Your task to perform on an android device: turn on sleep mode Image 0: 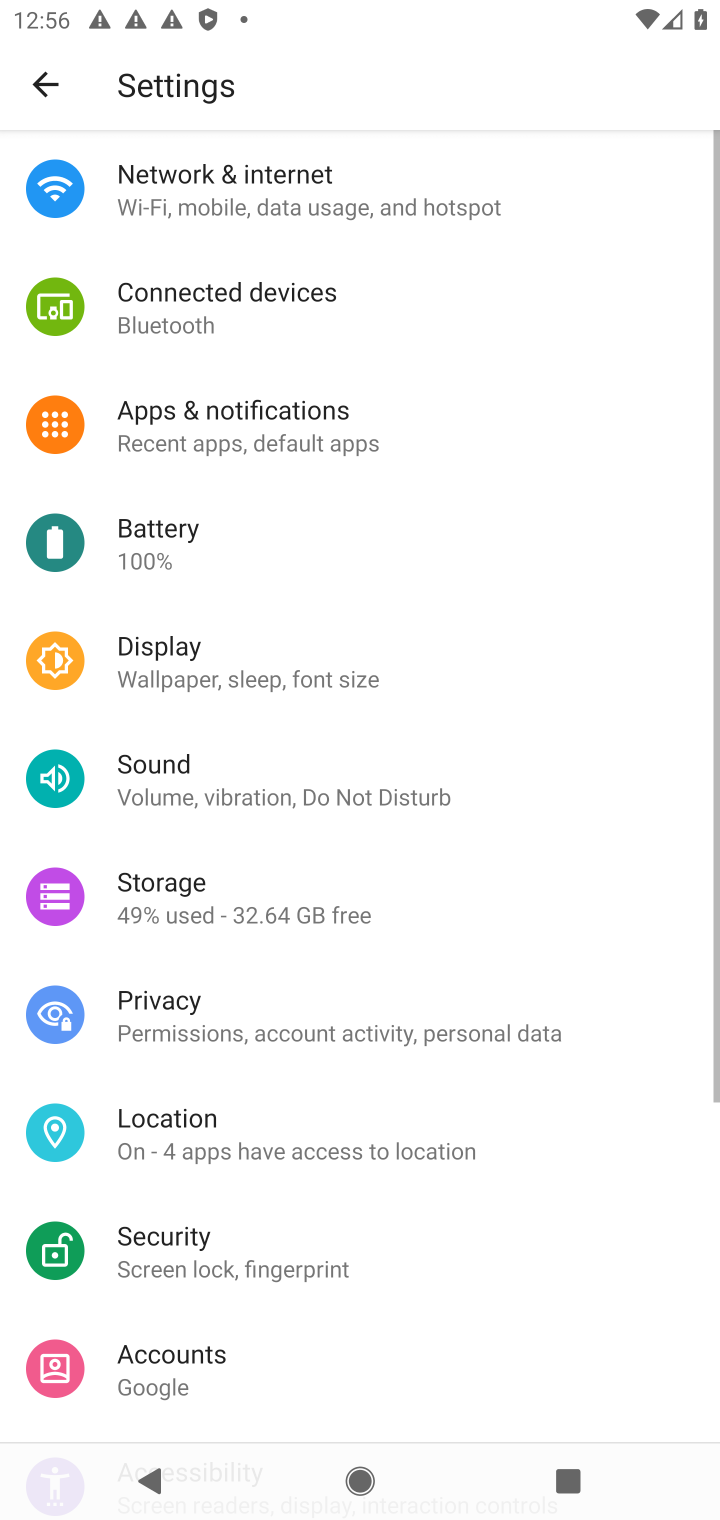
Step 0: click (223, 649)
Your task to perform on an android device: turn on sleep mode Image 1: 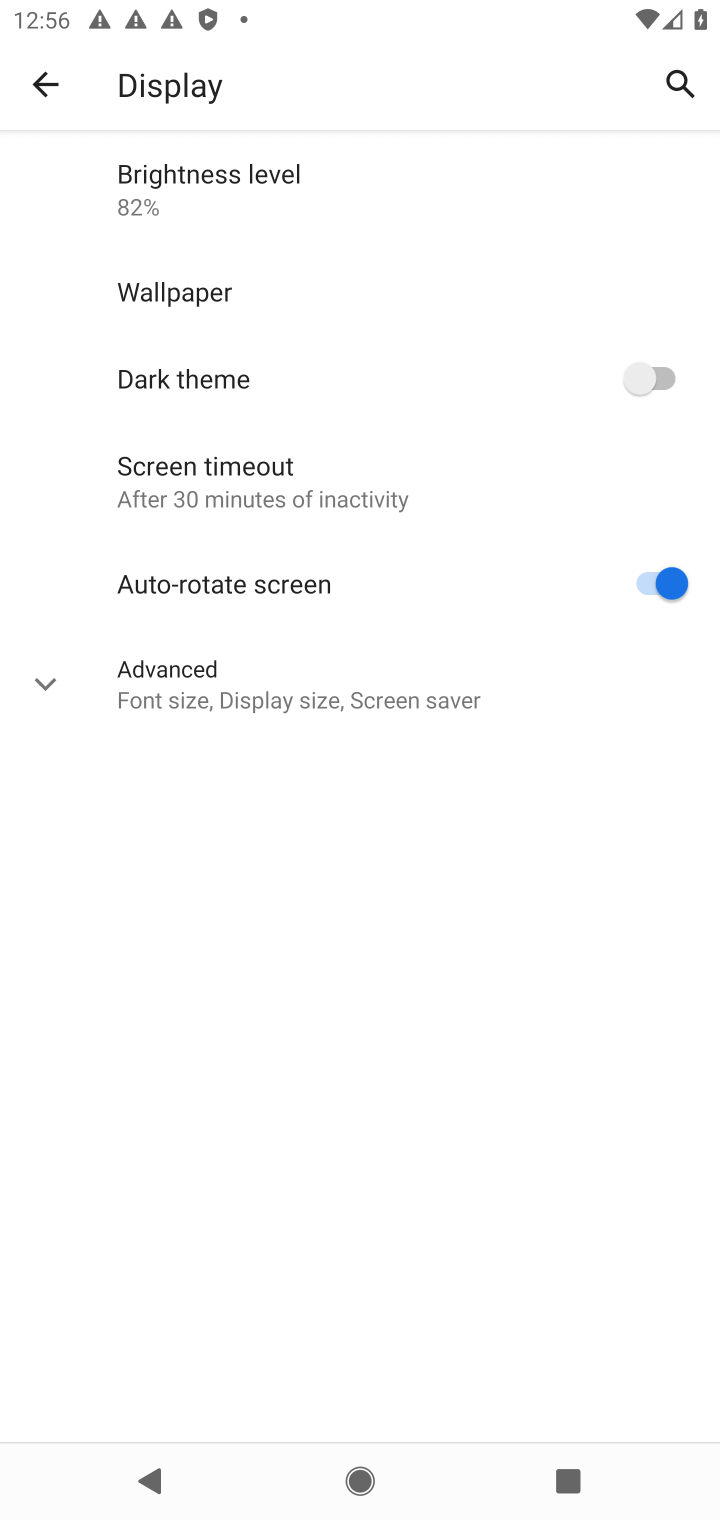
Step 1: click (247, 487)
Your task to perform on an android device: turn on sleep mode Image 2: 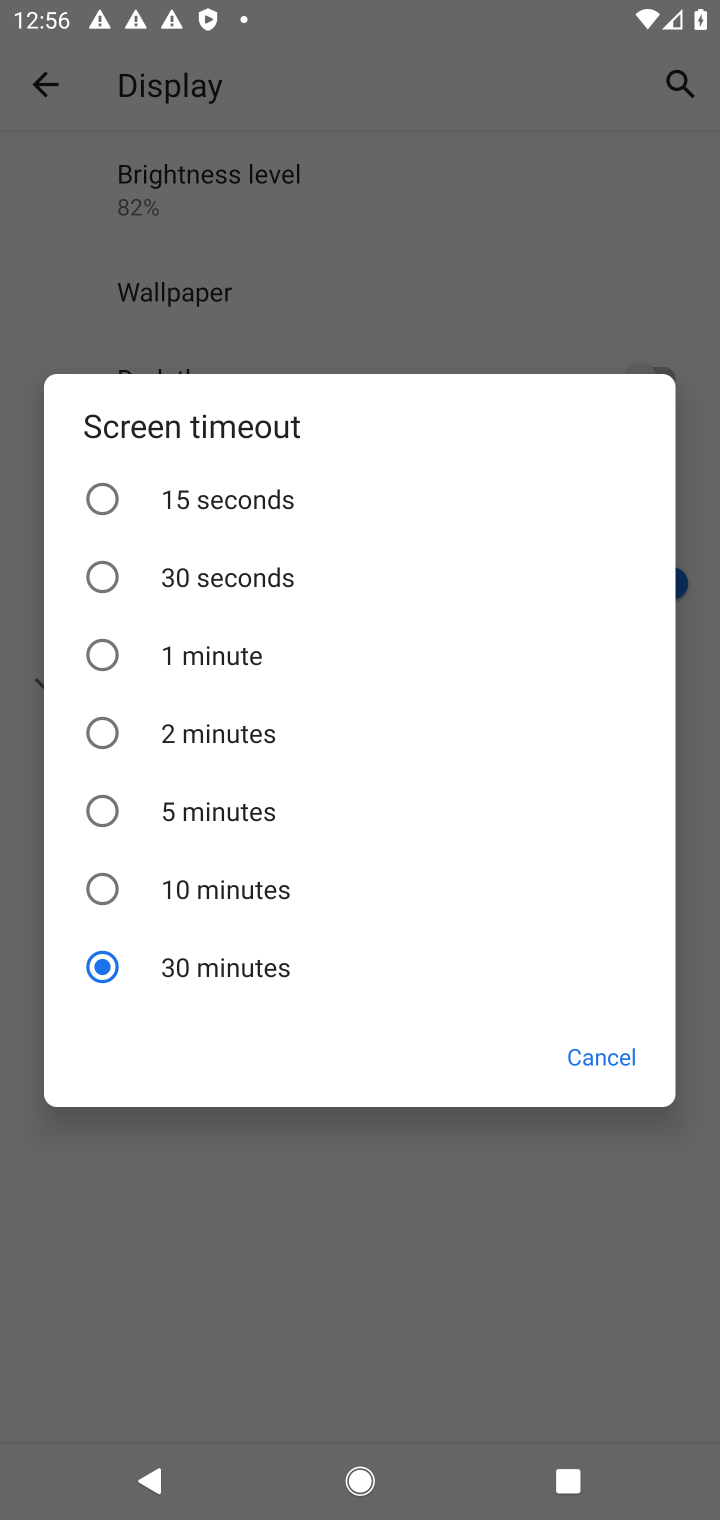
Step 2: task complete